Your task to perform on an android device: Open the web browser Image 0: 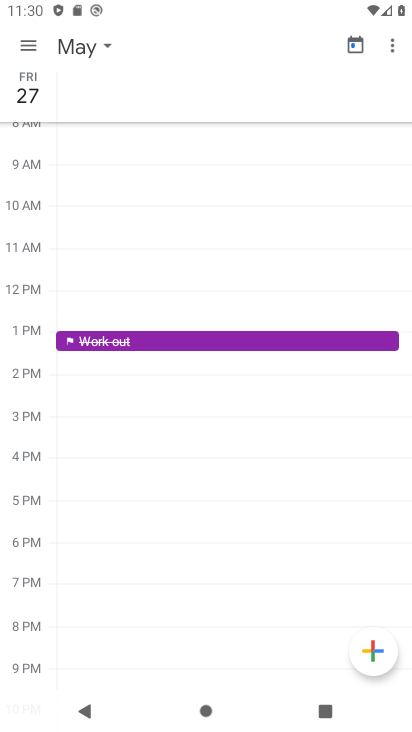
Step 0: press home button
Your task to perform on an android device: Open the web browser Image 1: 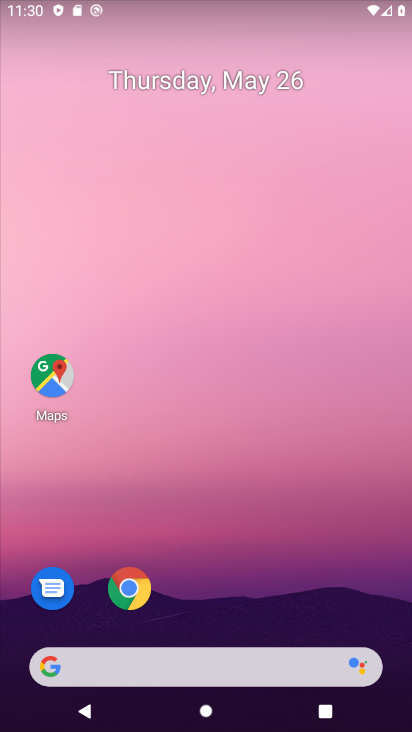
Step 1: click (235, 655)
Your task to perform on an android device: Open the web browser Image 2: 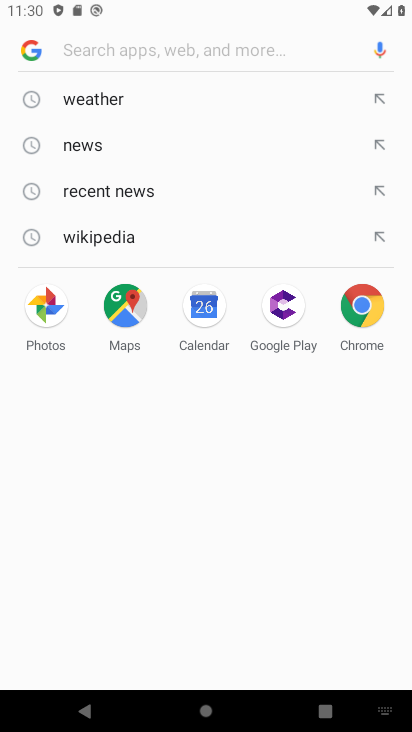
Step 2: task complete